Your task to perform on an android device: Go to CNN.com Image 0: 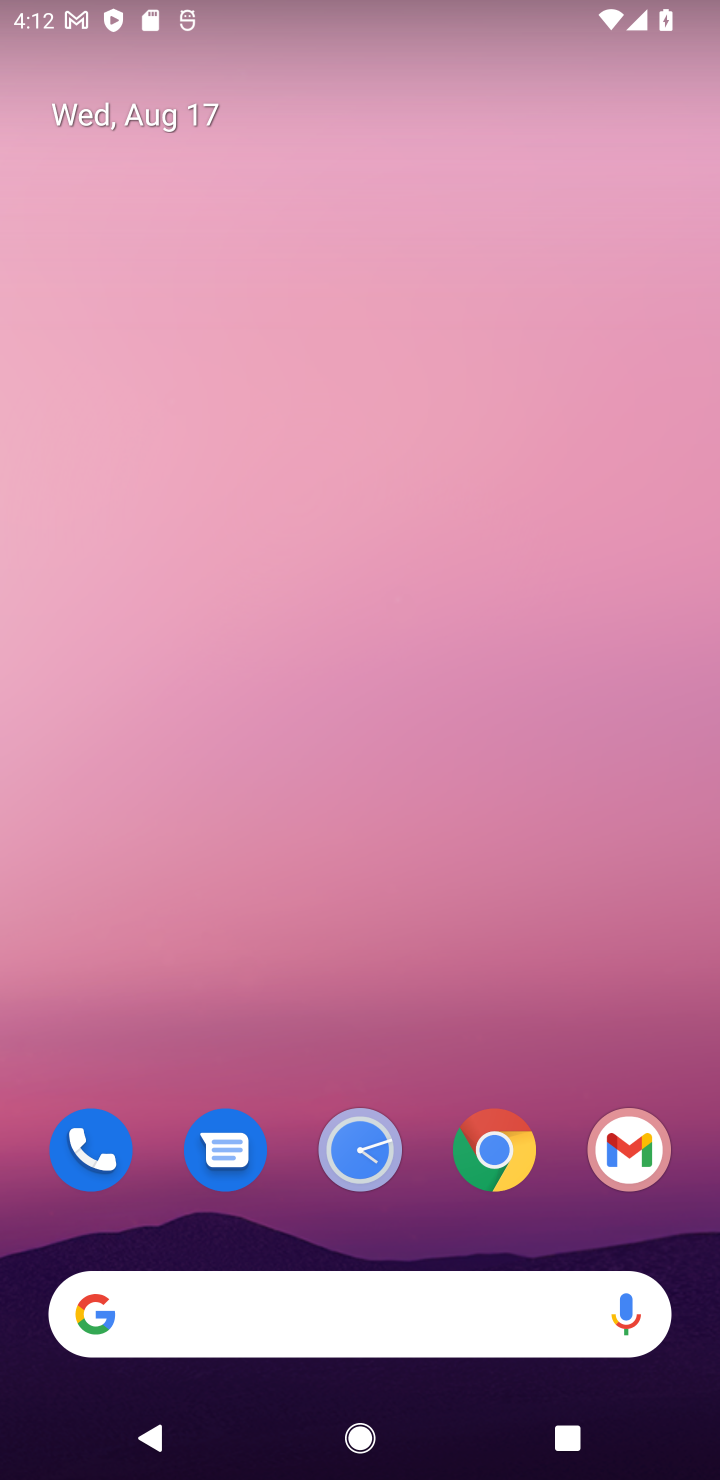
Step 0: drag from (660, 1231) to (14, 191)
Your task to perform on an android device: Go to CNN.com Image 1: 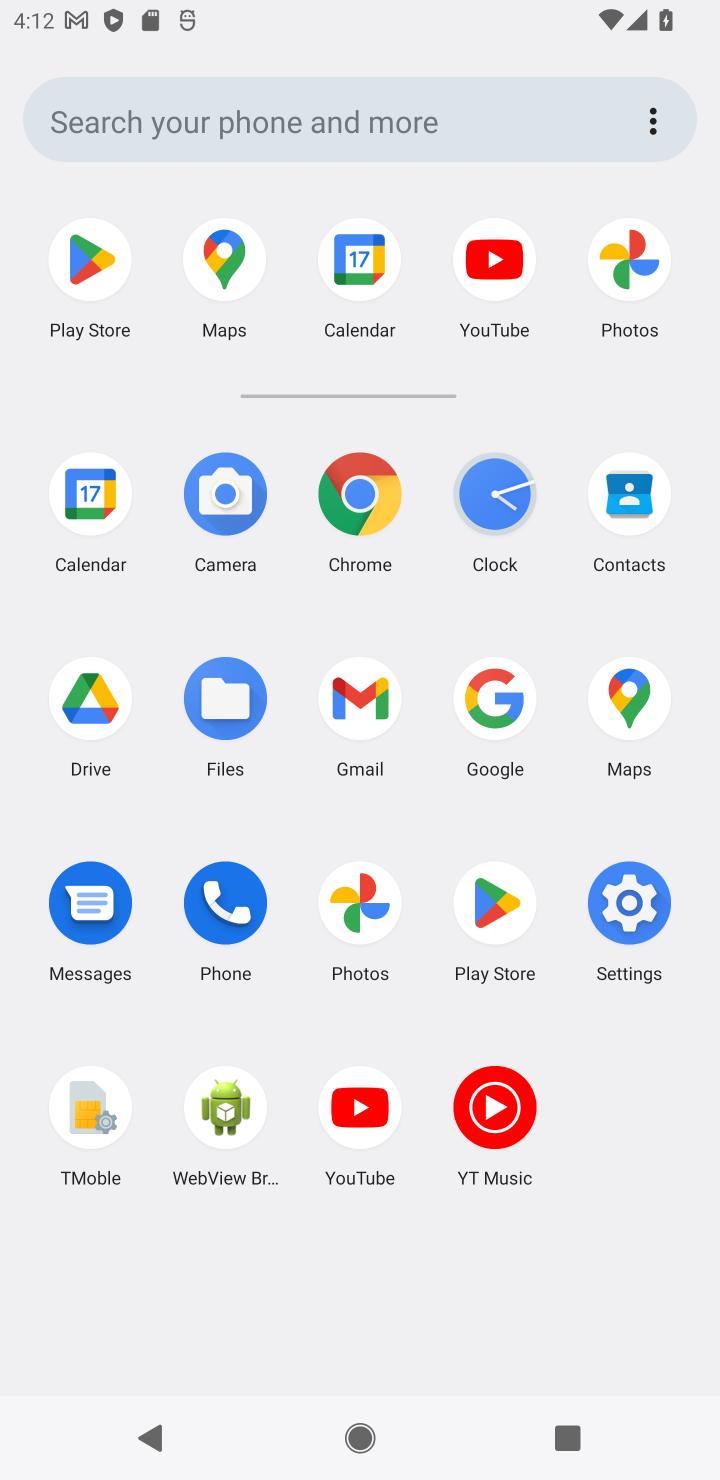
Step 1: click (507, 712)
Your task to perform on an android device: Go to CNN.com Image 2: 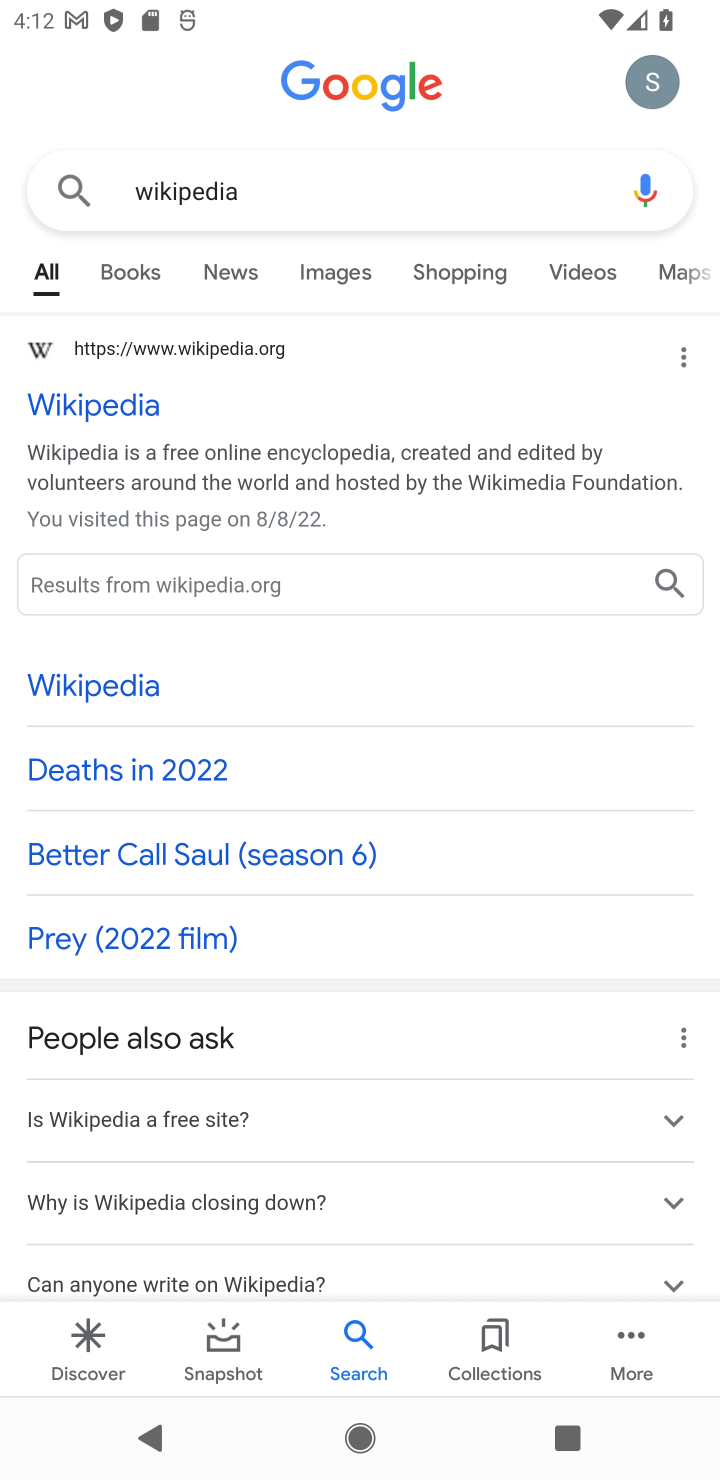
Step 2: press back button
Your task to perform on an android device: Go to CNN.com Image 3: 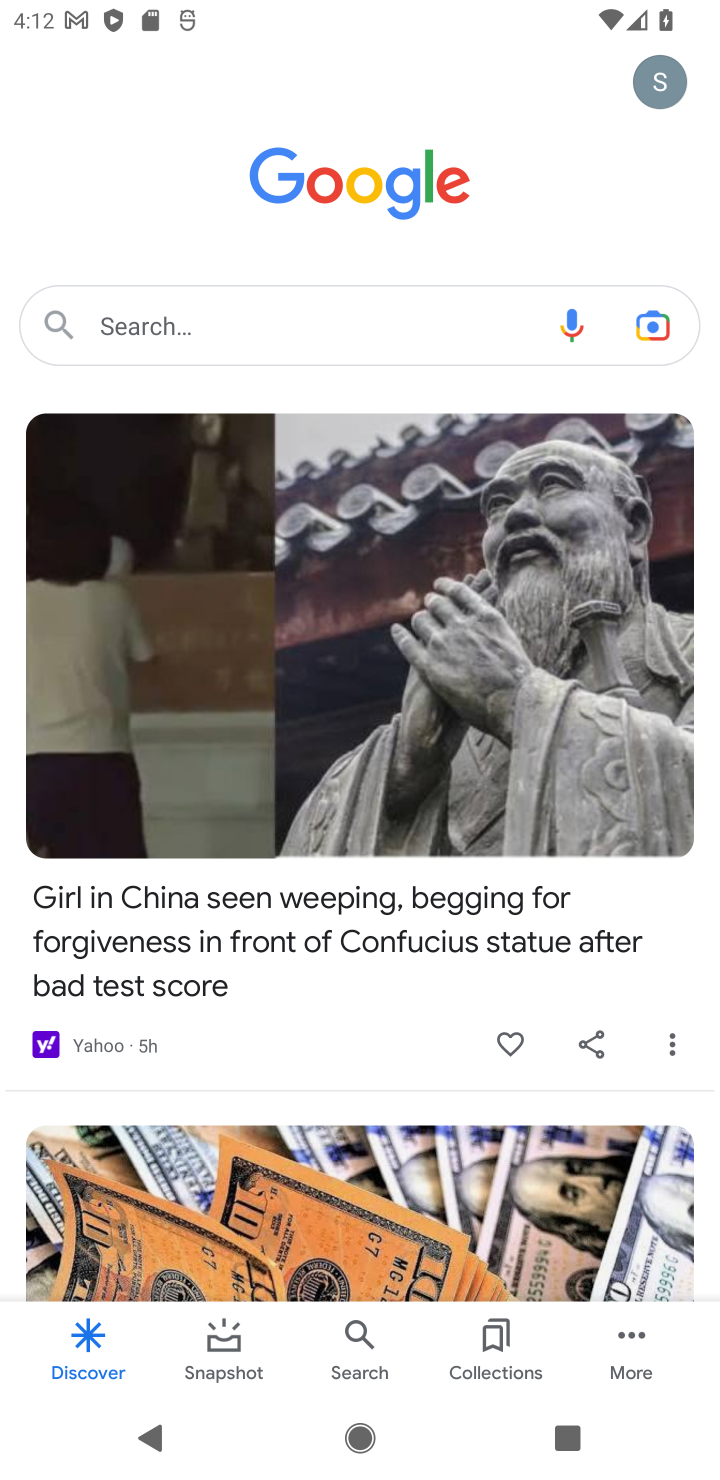
Step 3: click (167, 345)
Your task to perform on an android device: Go to CNN.com Image 4: 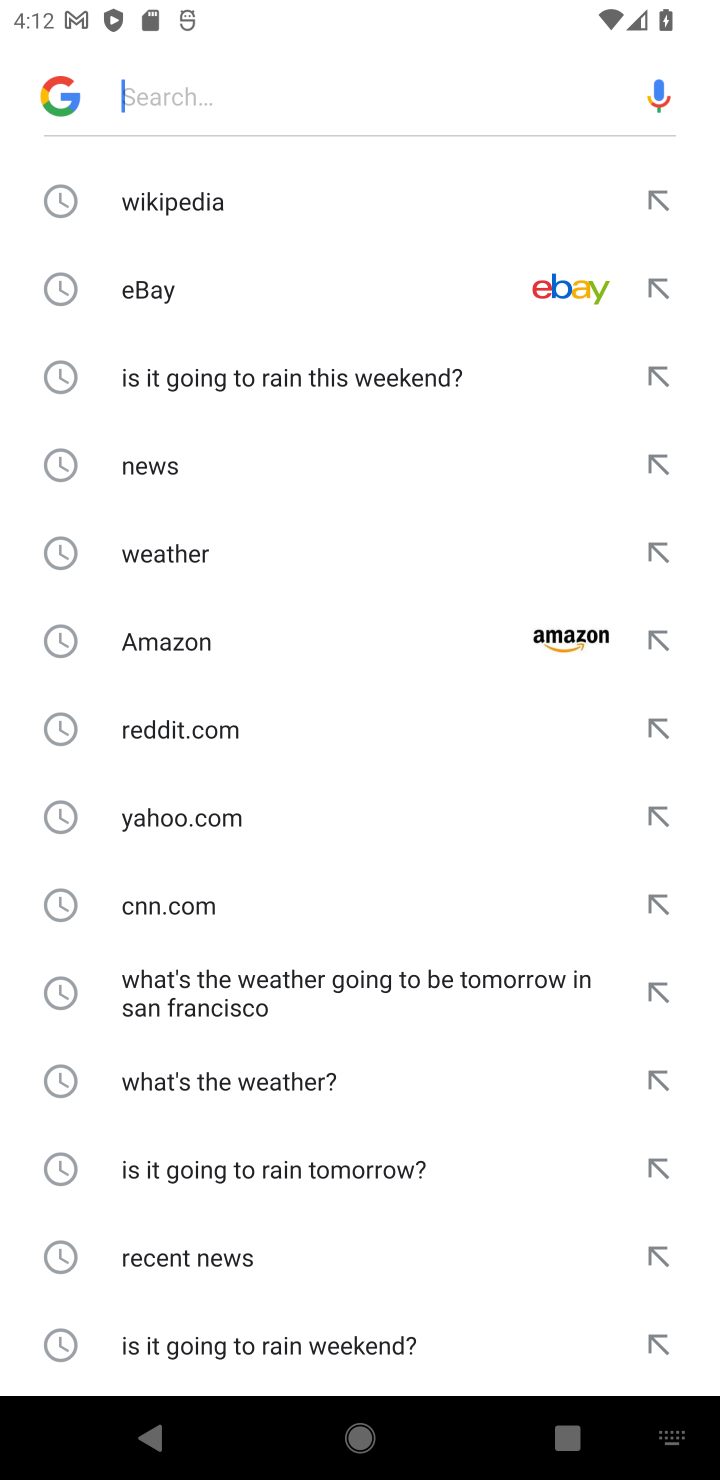
Step 4: type "CNN.com"
Your task to perform on an android device: Go to CNN.com Image 5: 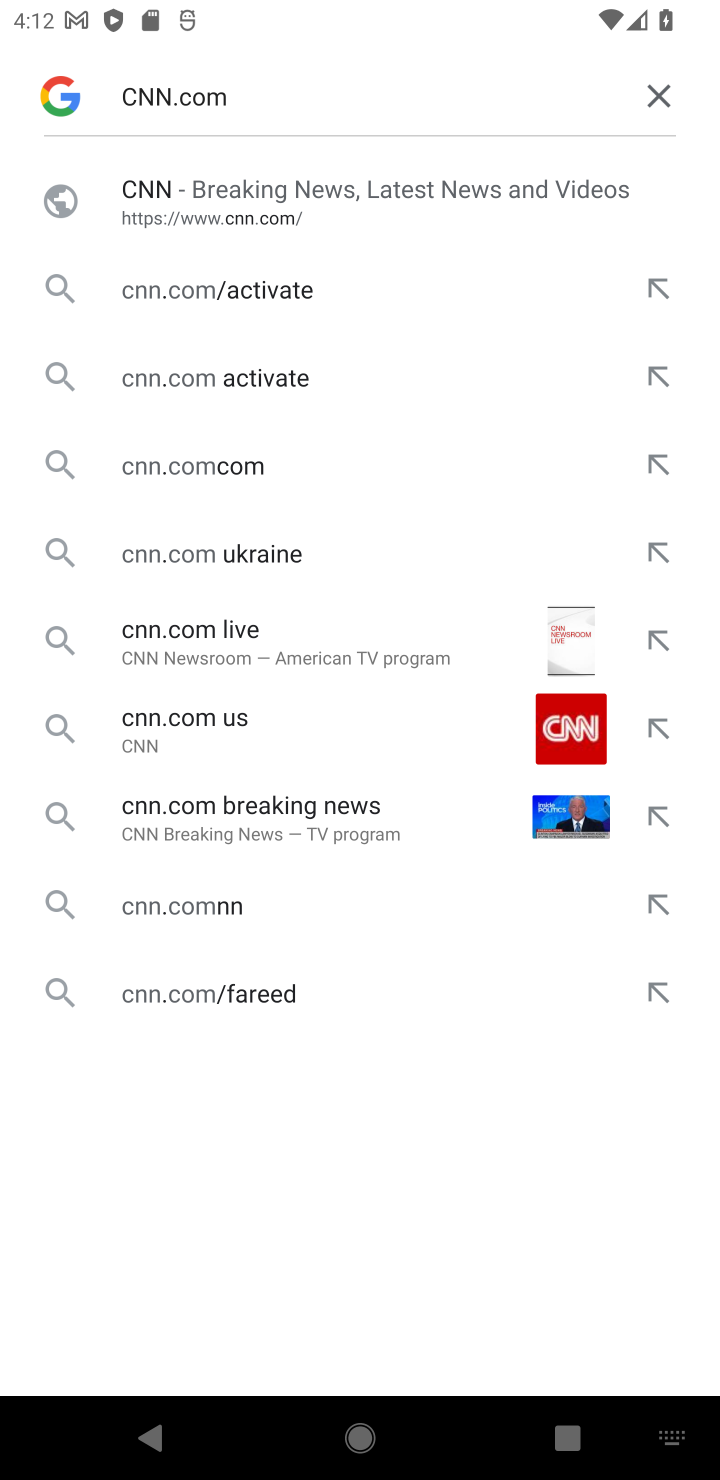
Step 5: click (209, 220)
Your task to perform on an android device: Go to CNN.com Image 6: 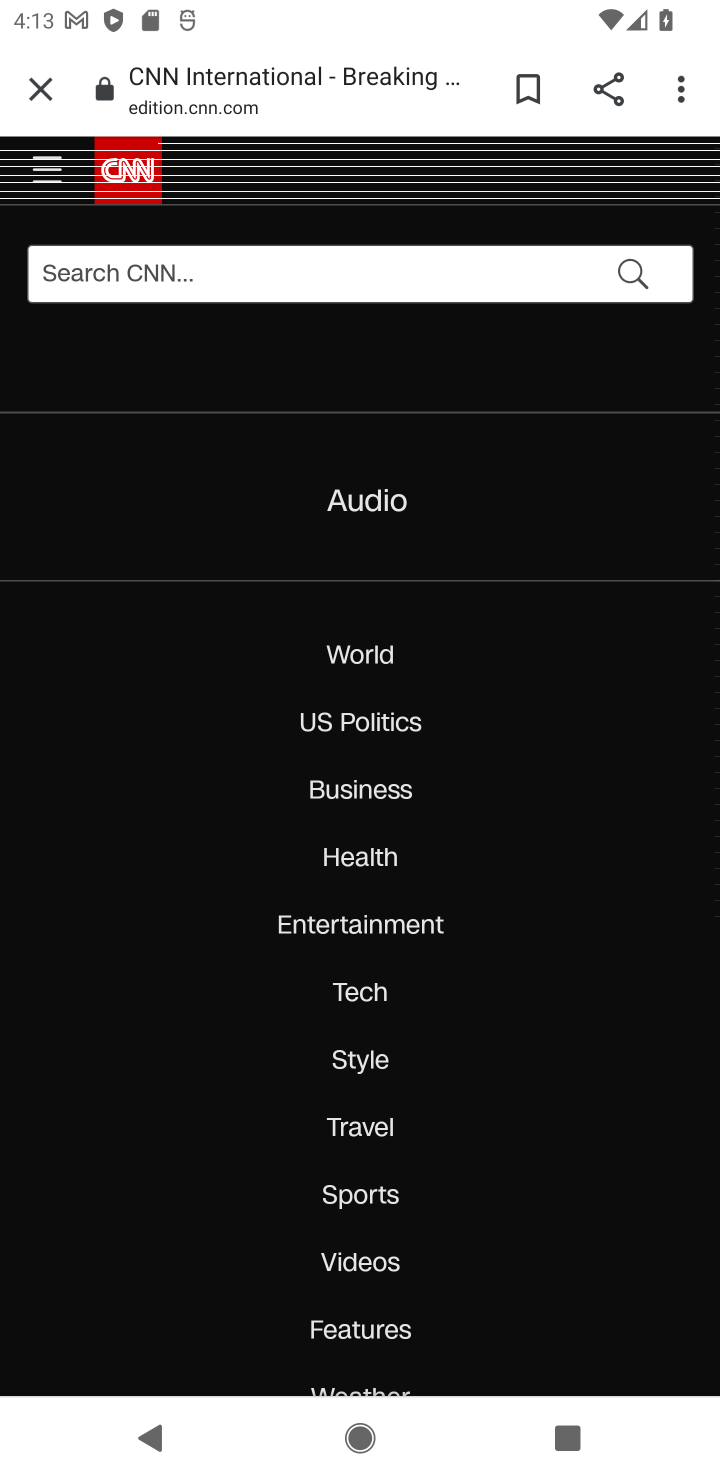
Step 6: task complete